Your task to perform on an android device: Clear the cart on costco. Search for "apple airpods pro" on costco, select the first entry, add it to the cart, then select checkout. Image 0: 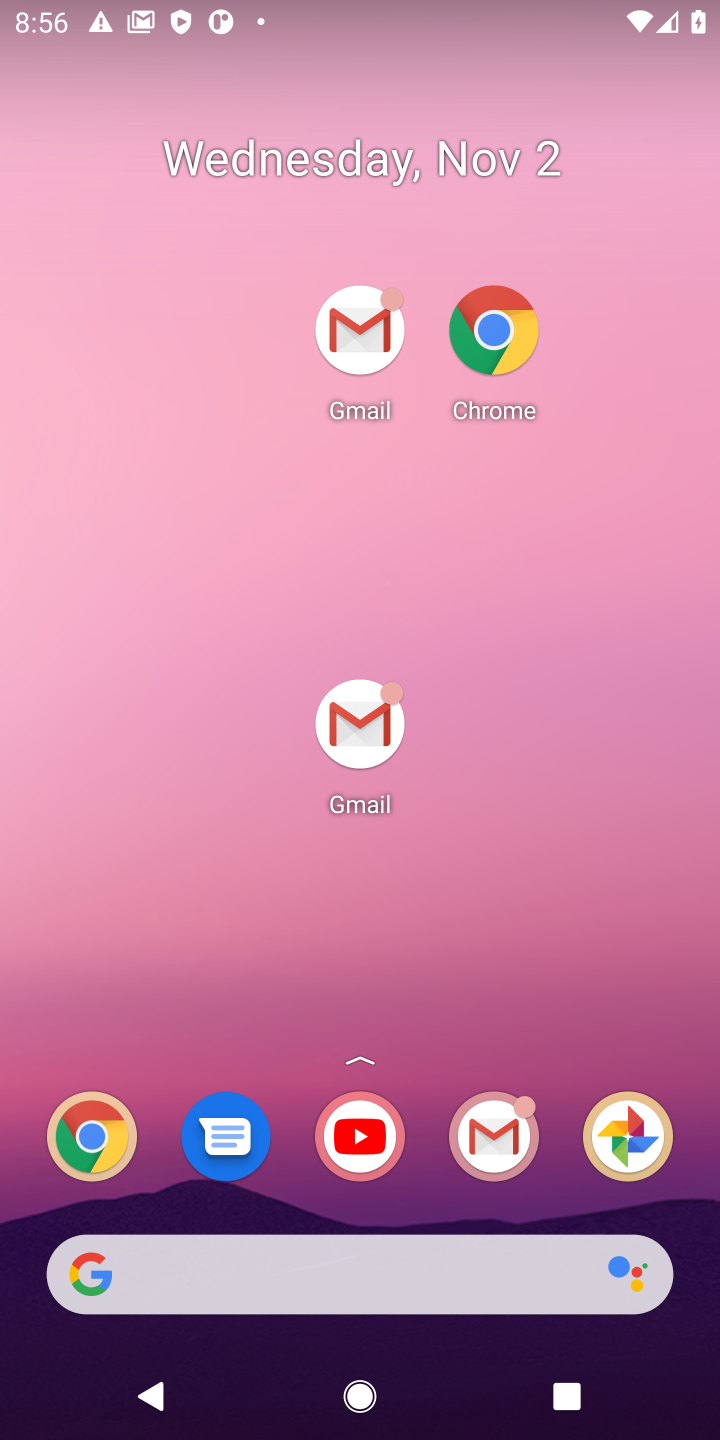
Step 0: drag from (194, 1198) to (336, 234)
Your task to perform on an android device: Clear the cart on costco. Search for "apple airpods pro" on costco, select the first entry, add it to the cart, then select checkout. Image 1: 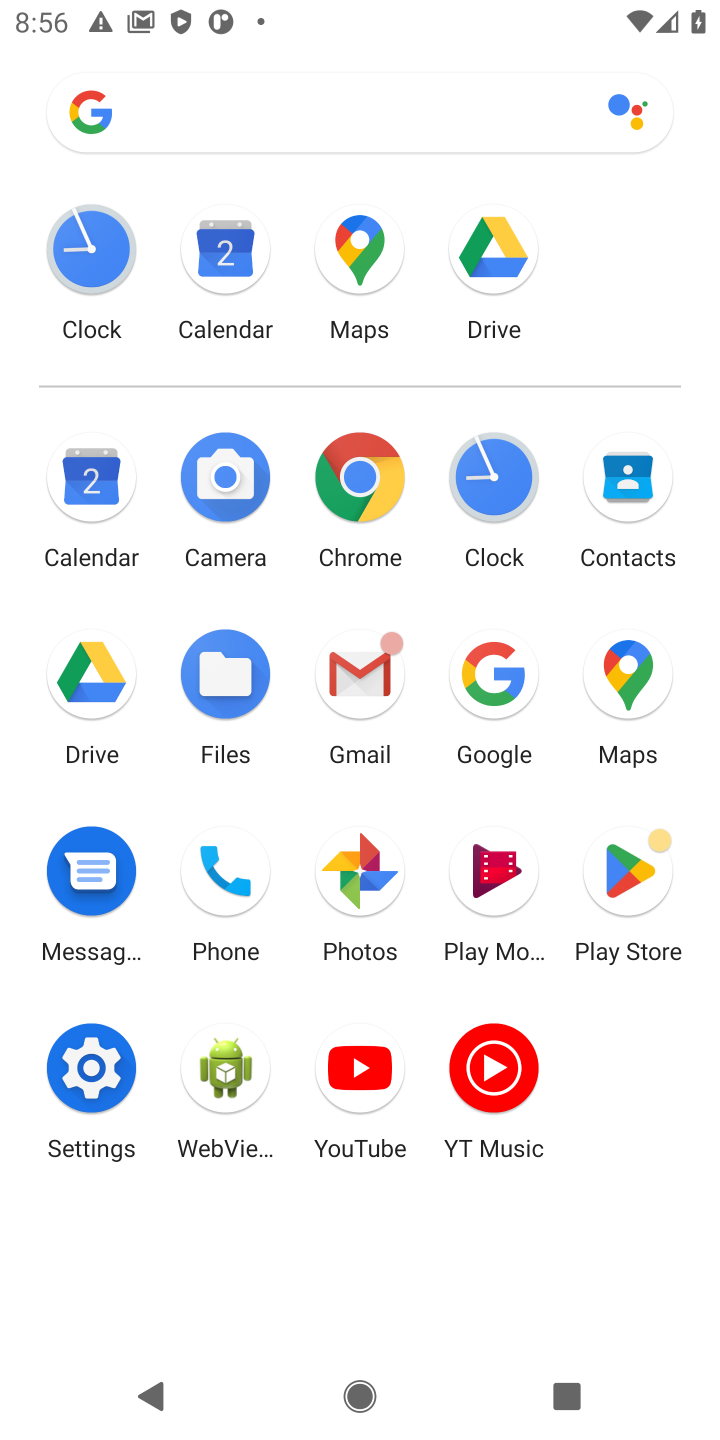
Step 1: click (489, 678)
Your task to perform on an android device: Clear the cart on costco. Search for "apple airpods pro" on costco, select the first entry, add it to the cart, then select checkout. Image 2: 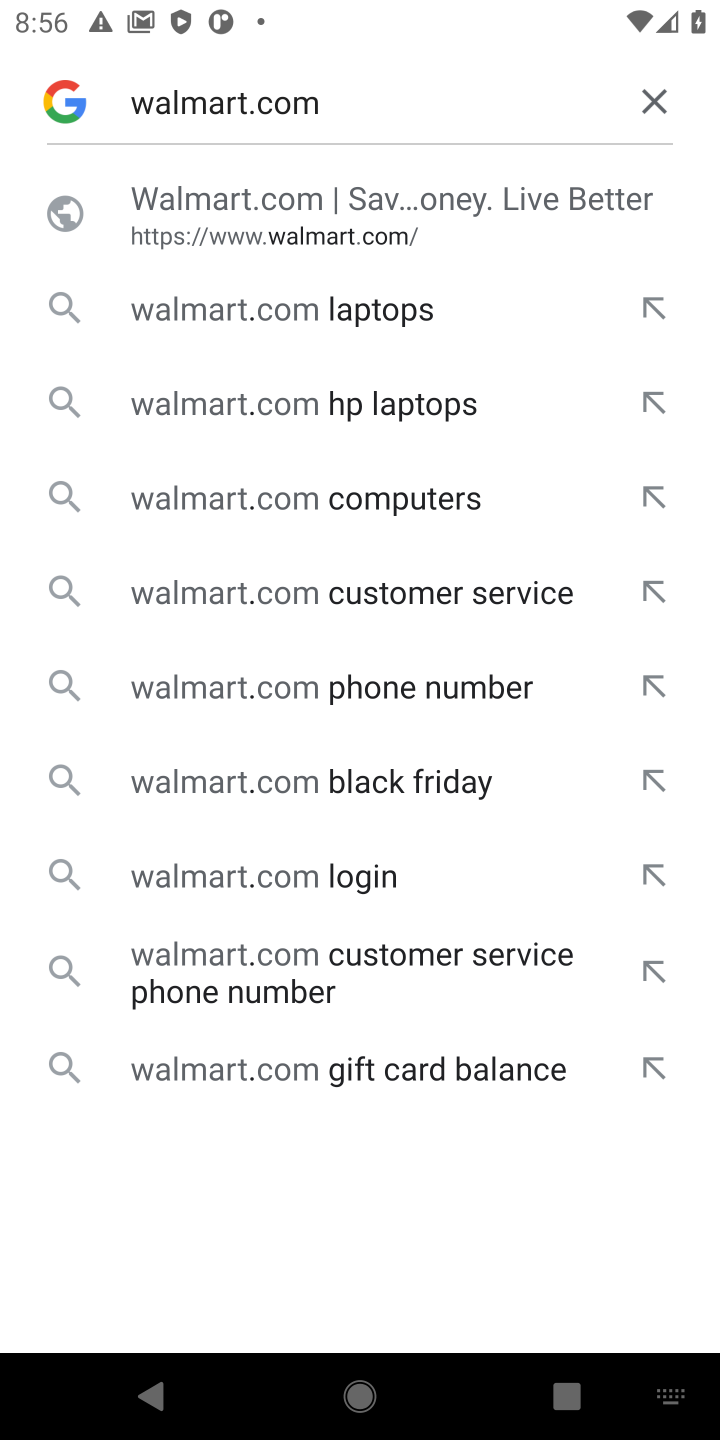
Step 2: click (651, 100)
Your task to perform on an android device: Clear the cart on costco. Search for "apple airpods pro" on costco, select the first entry, add it to the cart, then select checkout. Image 3: 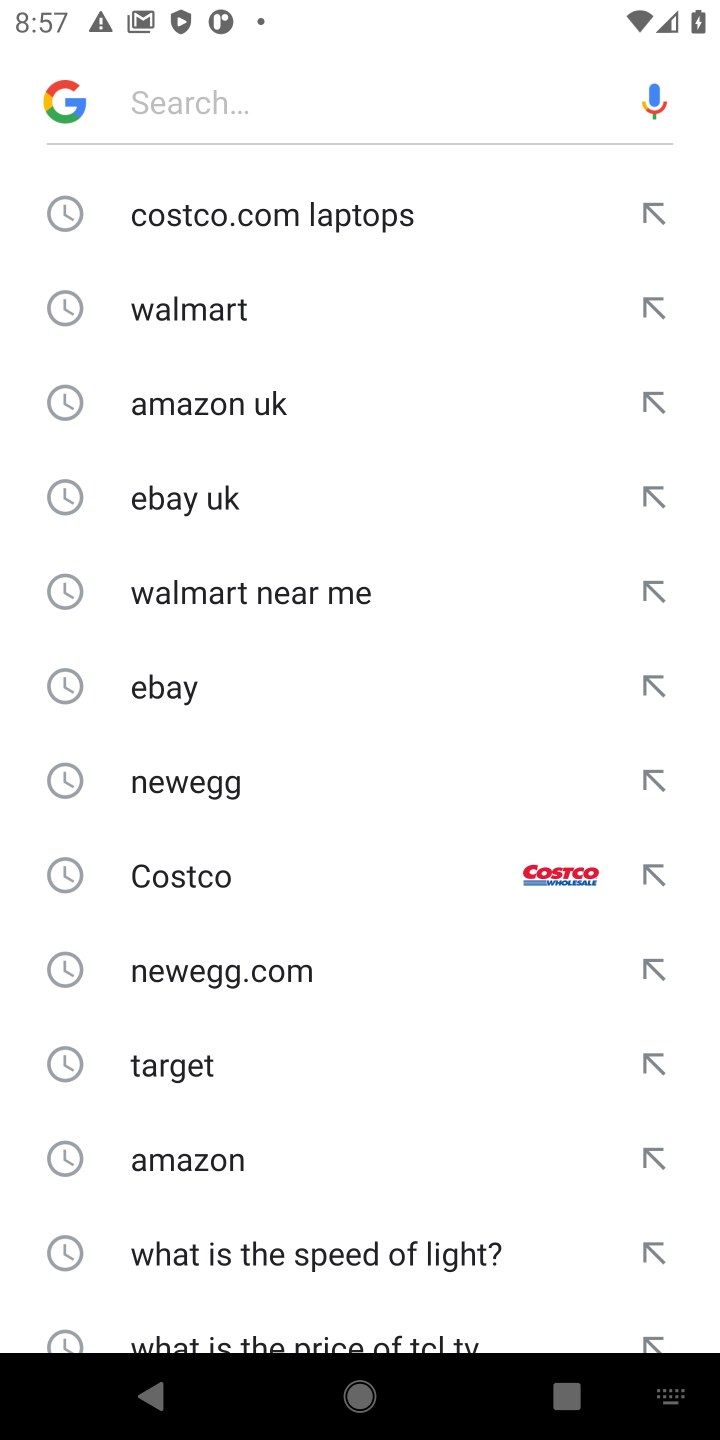
Step 3: click (292, 80)
Your task to perform on an android device: Clear the cart on costco. Search for "apple airpods pro" on costco, select the first entry, add it to the cart, then select checkout. Image 4: 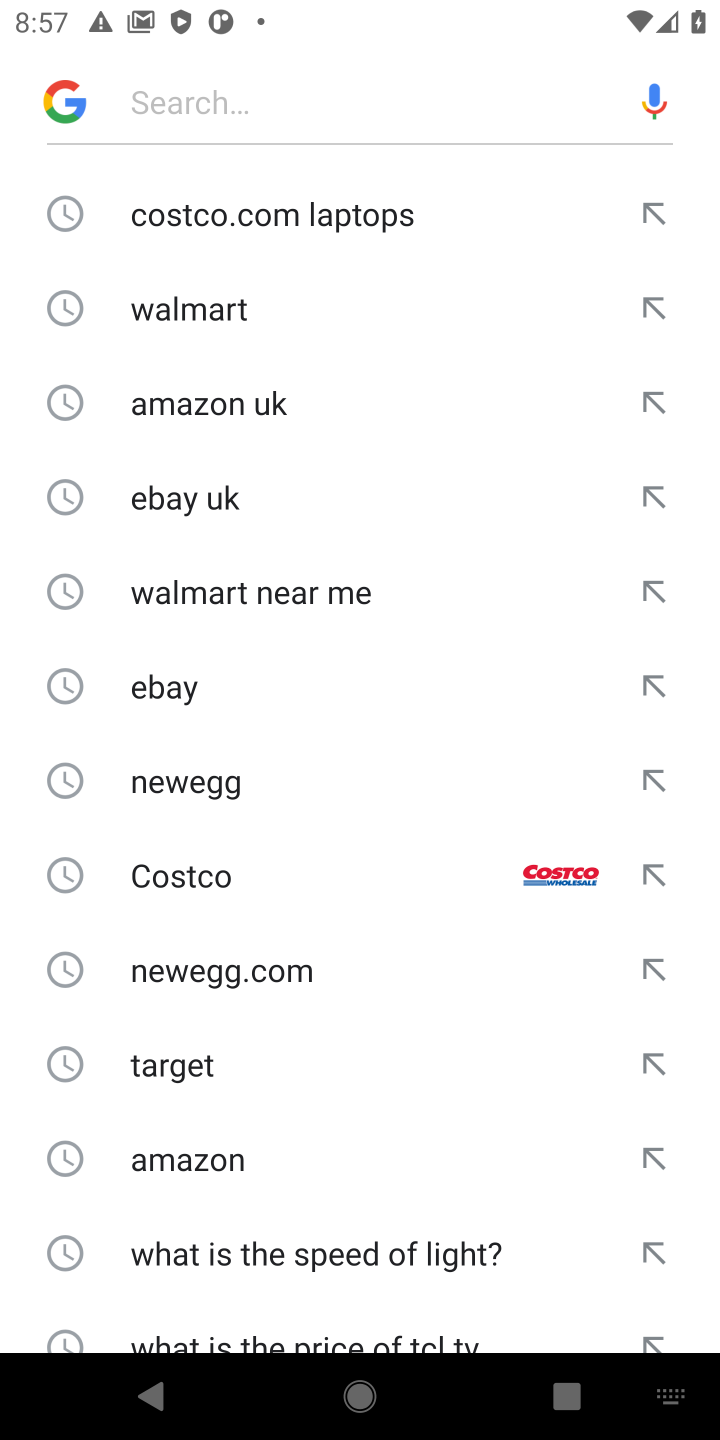
Step 4: type "costco "
Your task to perform on an android device: Clear the cart on costco. Search for "apple airpods pro" on costco, select the first entry, add it to the cart, then select checkout. Image 5: 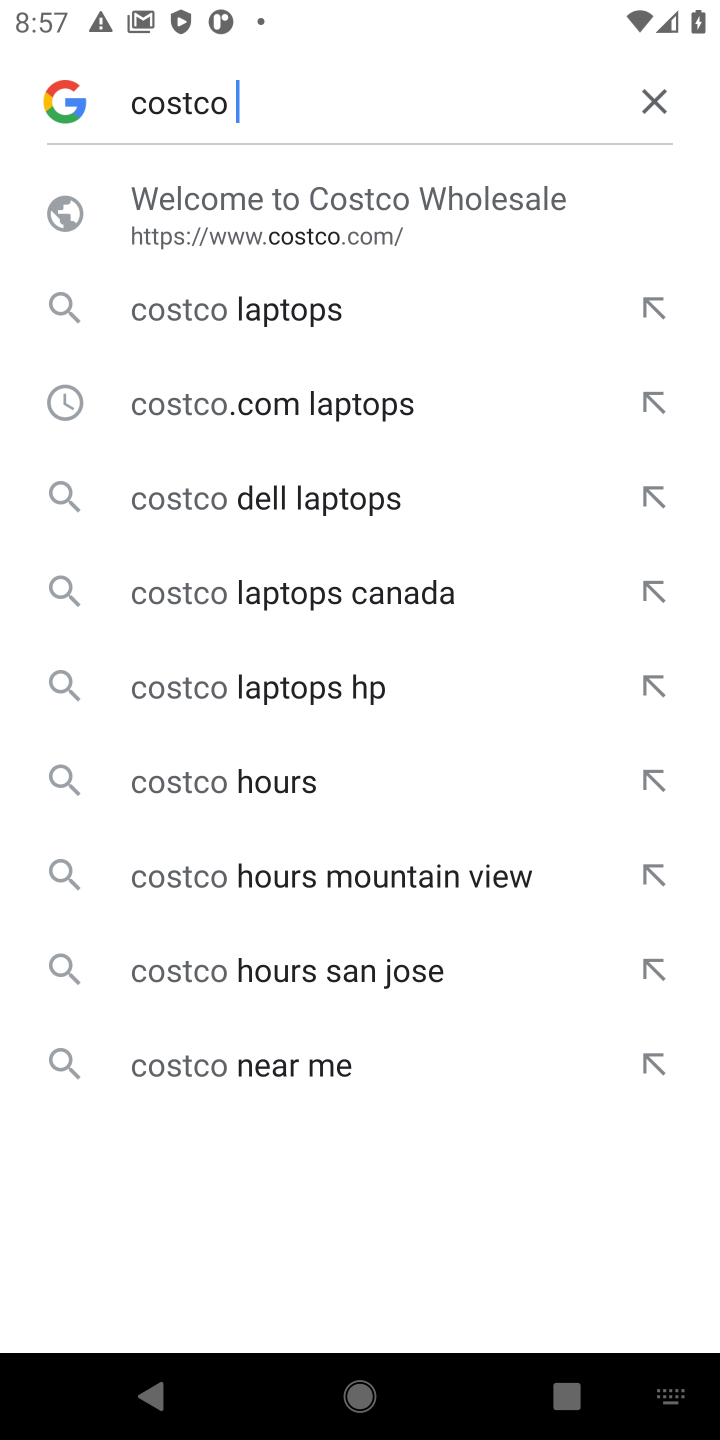
Step 5: click (353, 166)
Your task to perform on an android device: Clear the cart on costco. Search for "apple airpods pro" on costco, select the first entry, add it to the cart, then select checkout. Image 6: 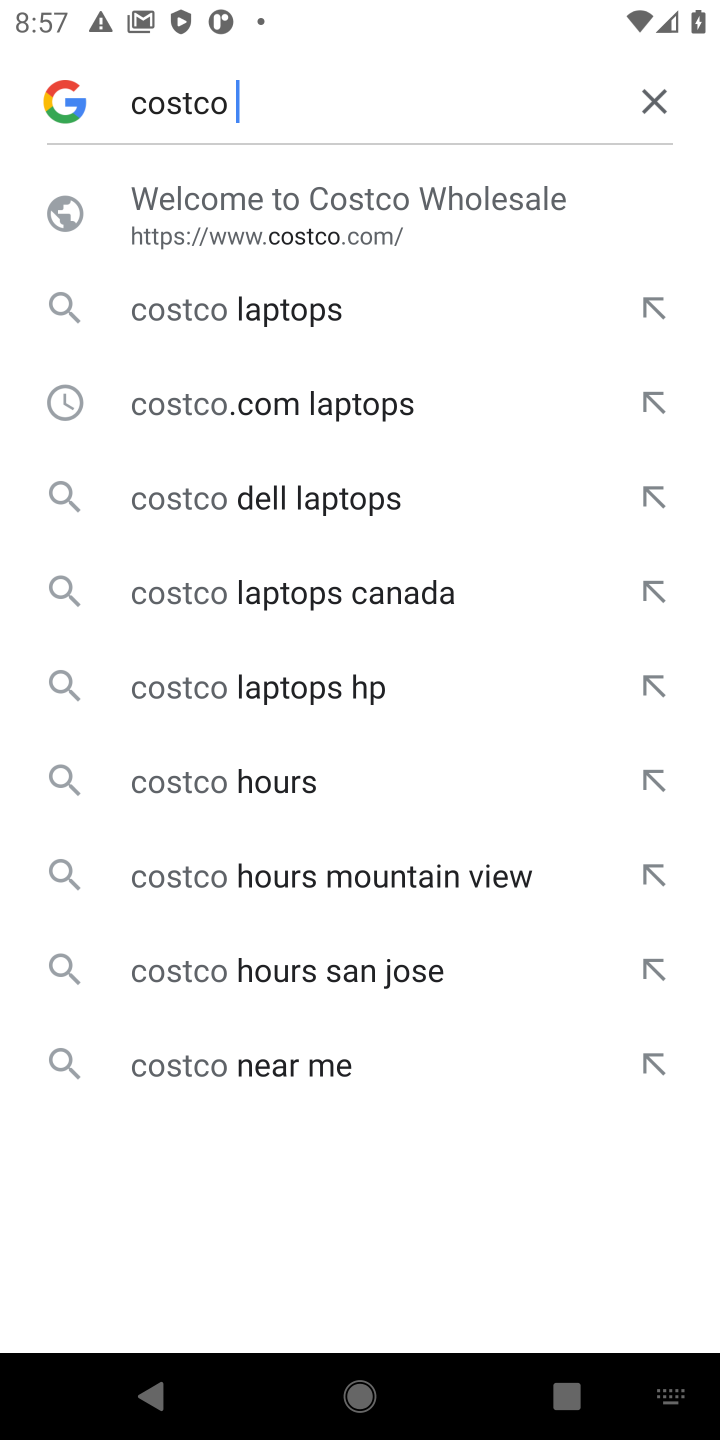
Step 6: click (394, 193)
Your task to perform on an android device: Clear the cart on costco. Search for "apple airpods pro" on costco, select the first entry, add it to the cart, then select checkout. Image 7: 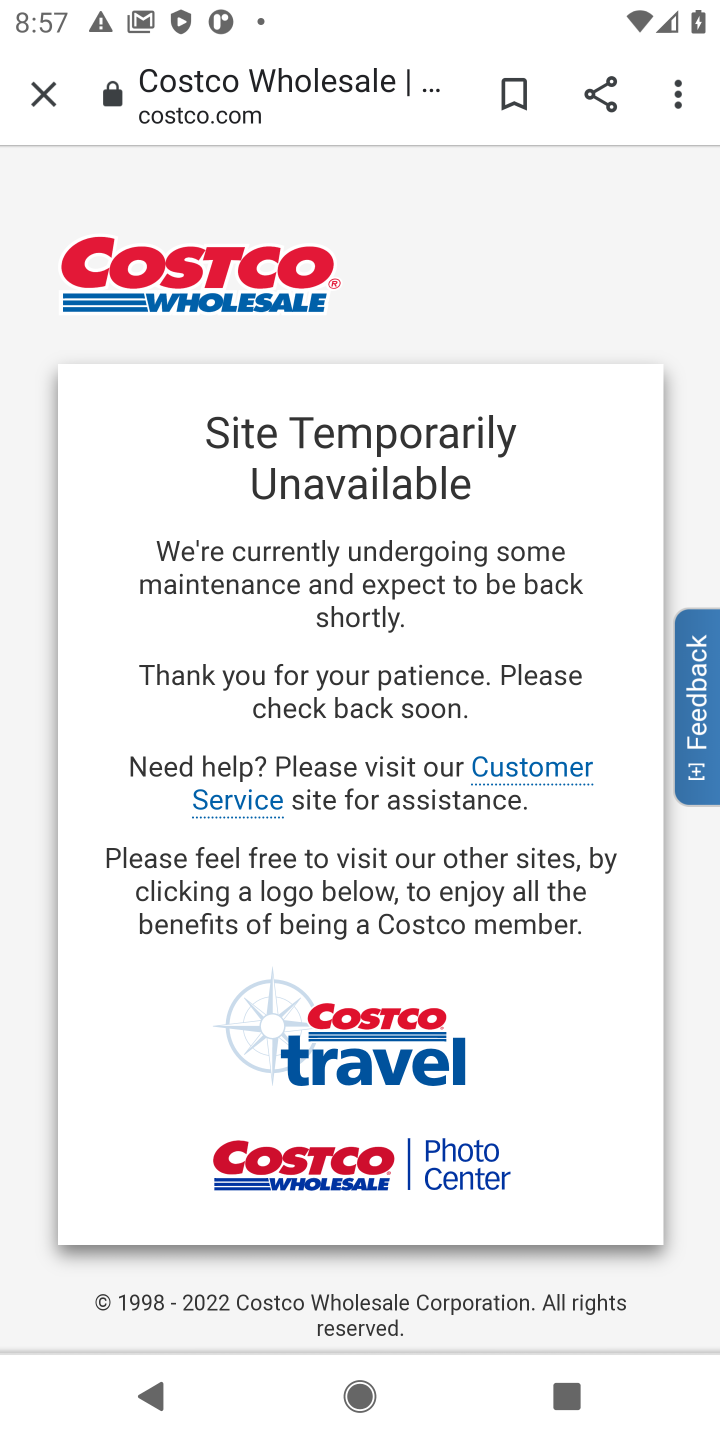
Step 7: drag from (493, 1094) to (467, 311)
Your task to perform on an android device: Clear the cart on costco. Search for "apple airpods pro" on costco, select the first entry, add it to the cart, then select checkout. Image 8: 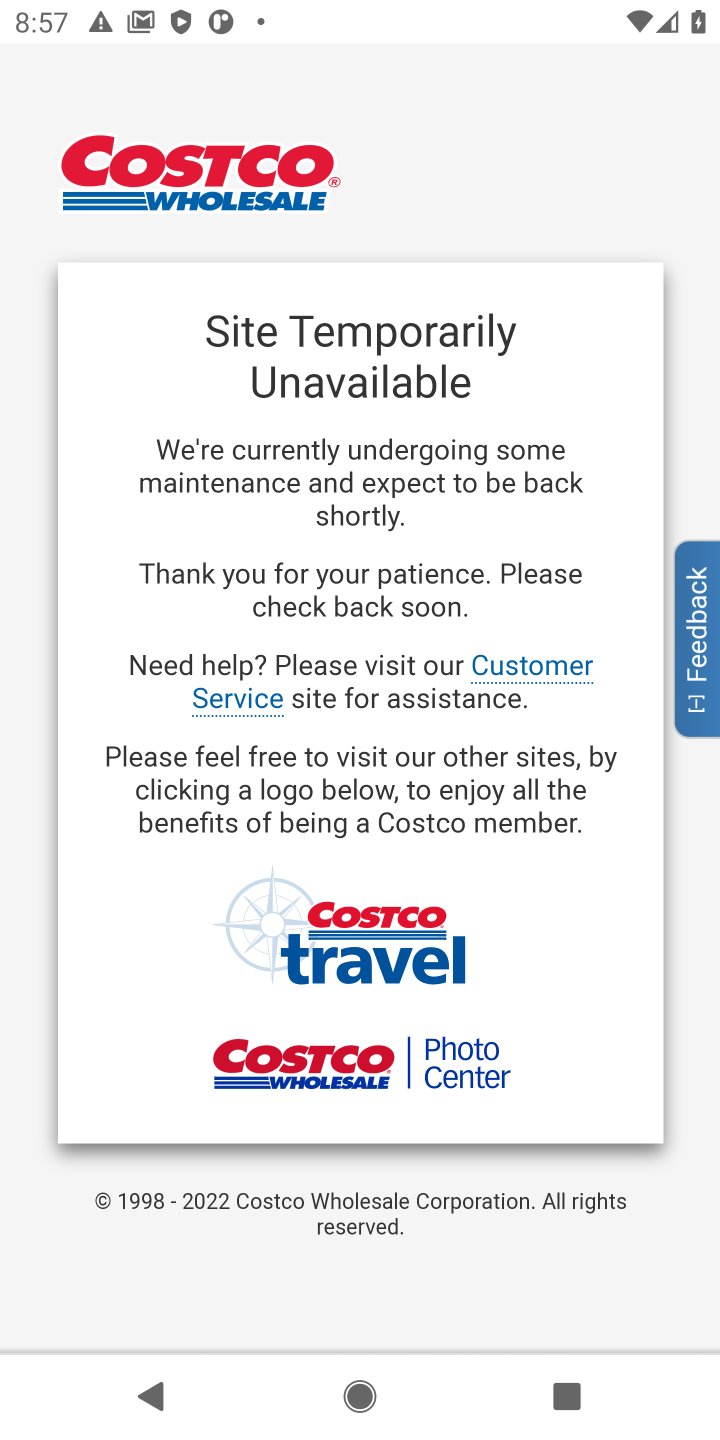
Step 8: press back button
Your task to perform on an android device: Clear the cart on costco. Search for "apple airpods pro" on costco, select the first entry, add it to the cart, then select checkout. Image 9: 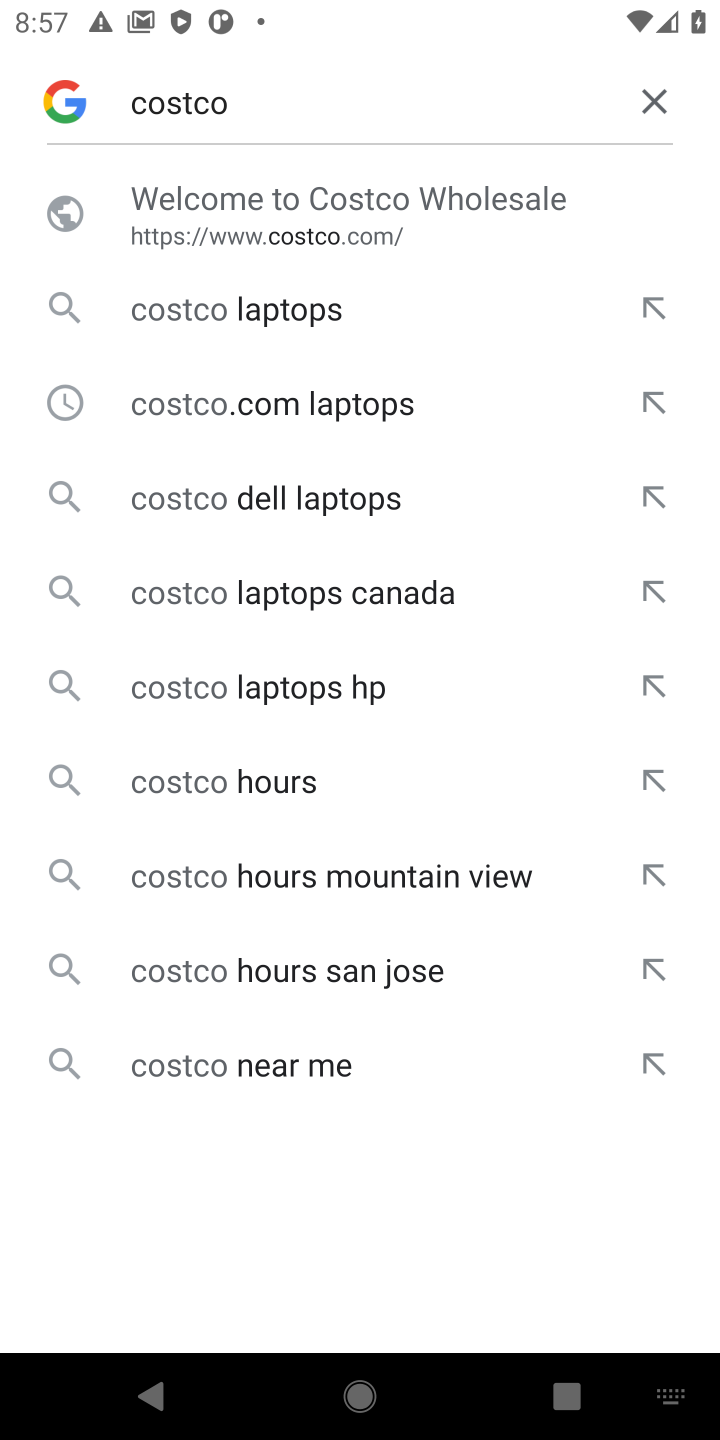
Step 9: click (223, 1057)
Your task to perform on an android device: Clear the cart on costco. Search for "apple airpods pro" on costco, select the first entry, add it to the cart, then select checkout. Image 10: 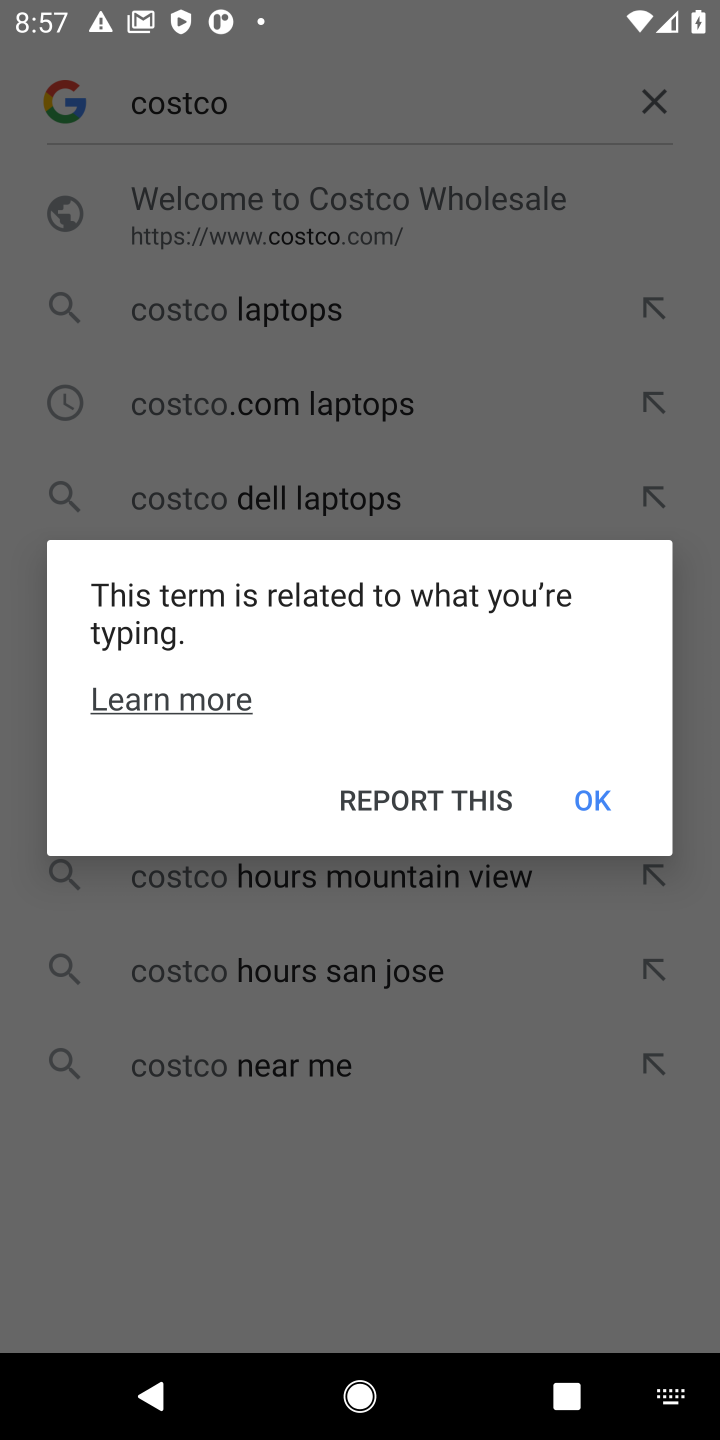
Step 10: click (621, 781)
Your task to perform on an android device: Clear the cart on costco. Search for "apple airpods pro" on costco, select the first entry, add it to the cart, then select checkout. Image 11: 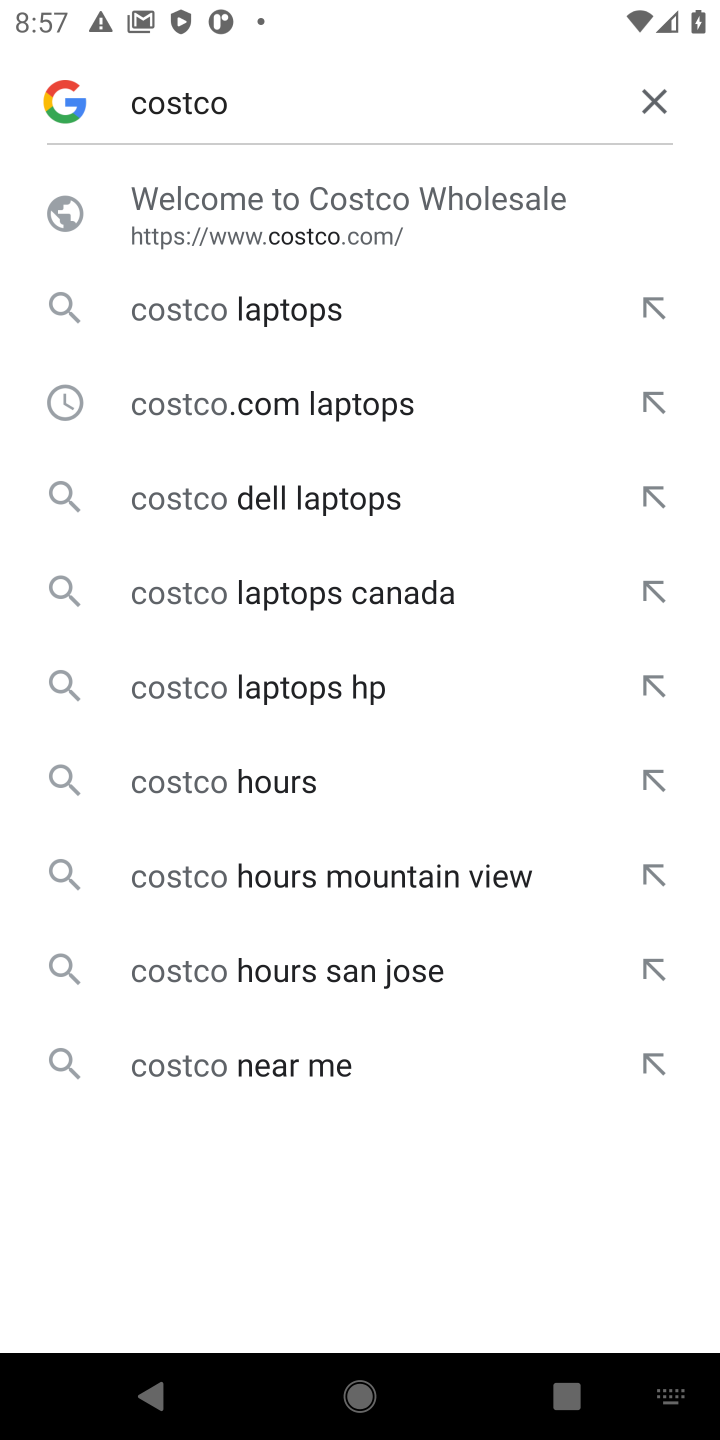
Step 11: click (648, 96)
Your task to perform on an android device: Clear the cart on costco. Search for "apple airpods pro" on costco, select the first entry, add it to the cart, then select checkout. Image 12: 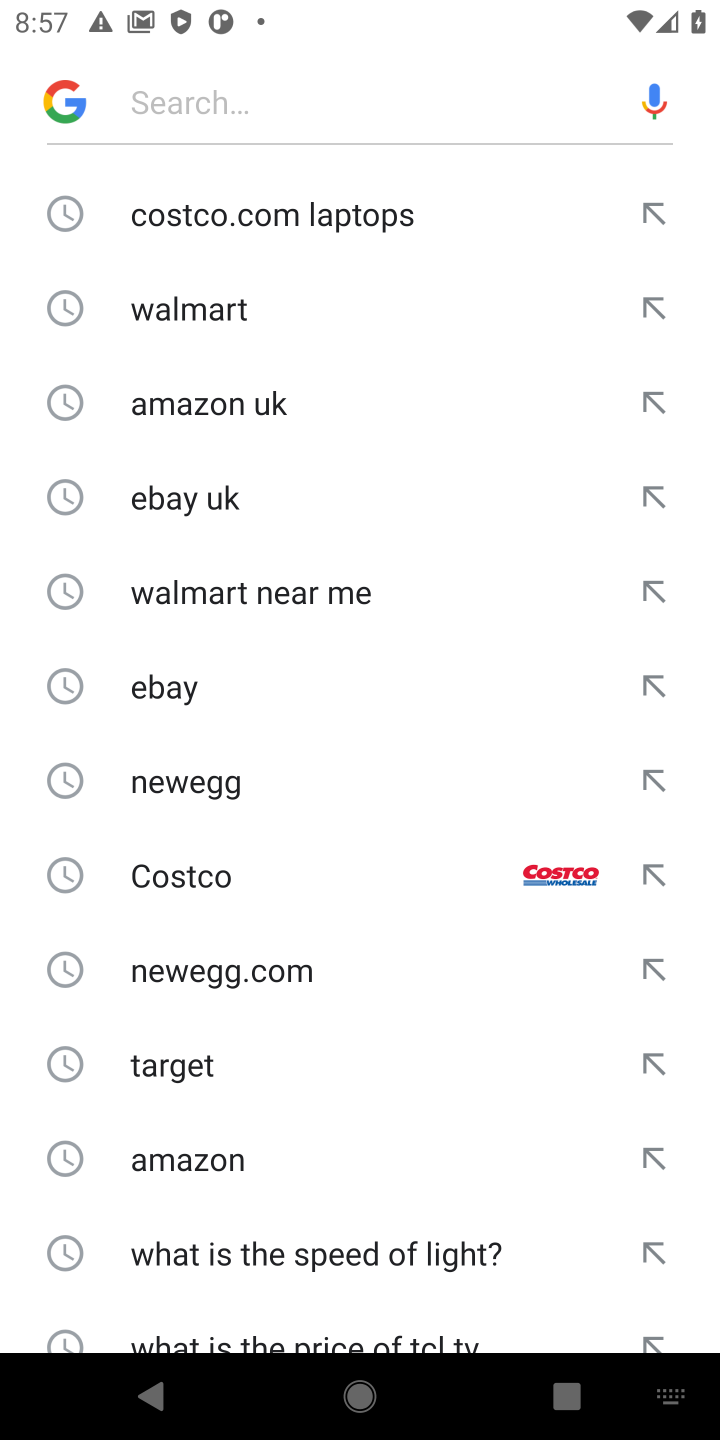
Step 12: click (343, 110)
Your task to perform on an android device: Clear the cart on costco. Search for "apple airpods pro" on costco, select the first entry, add it to the cart, then select checkout. Image 13: 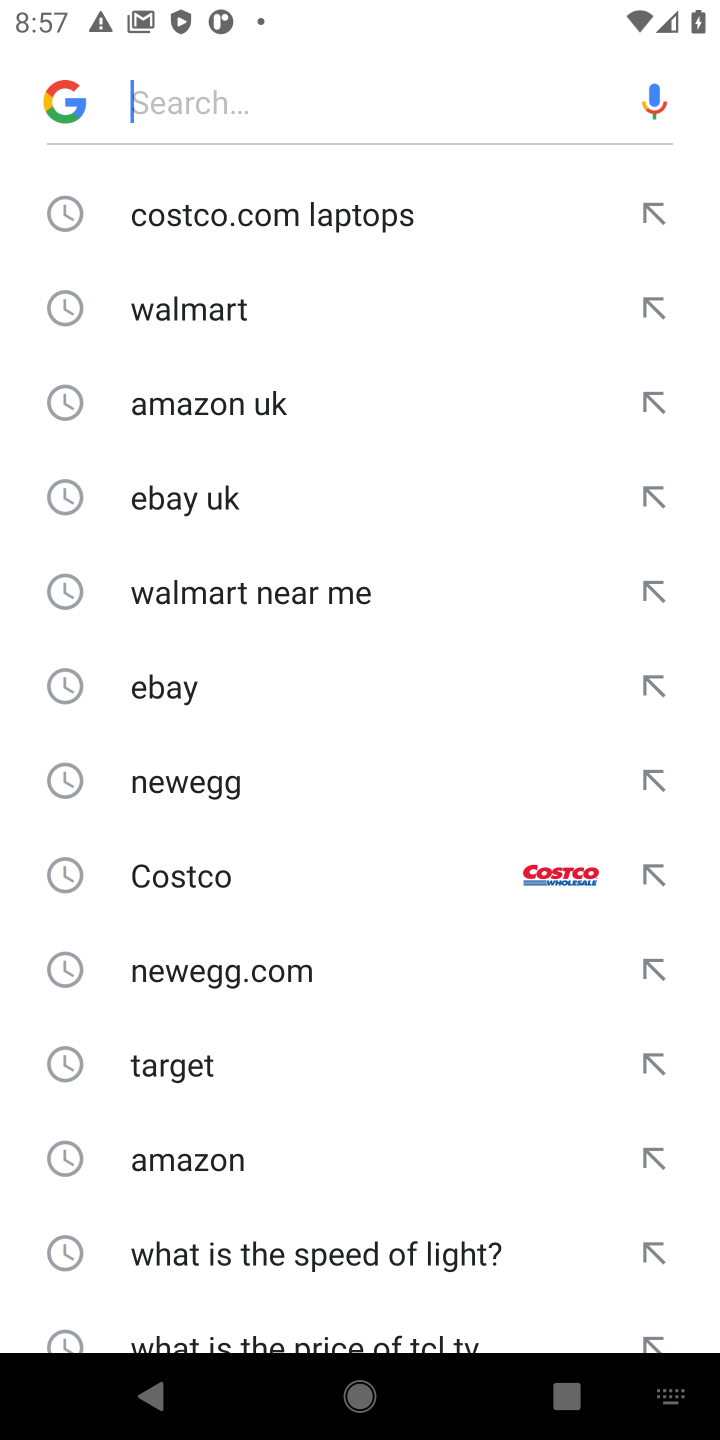
Step 13: click (340, 103)
Your task to perform on an android device: Clear the cart on costco. Search for "apple airpods pro" on costco, select the first entry, add it to the cart, then select checkout. Image 14: 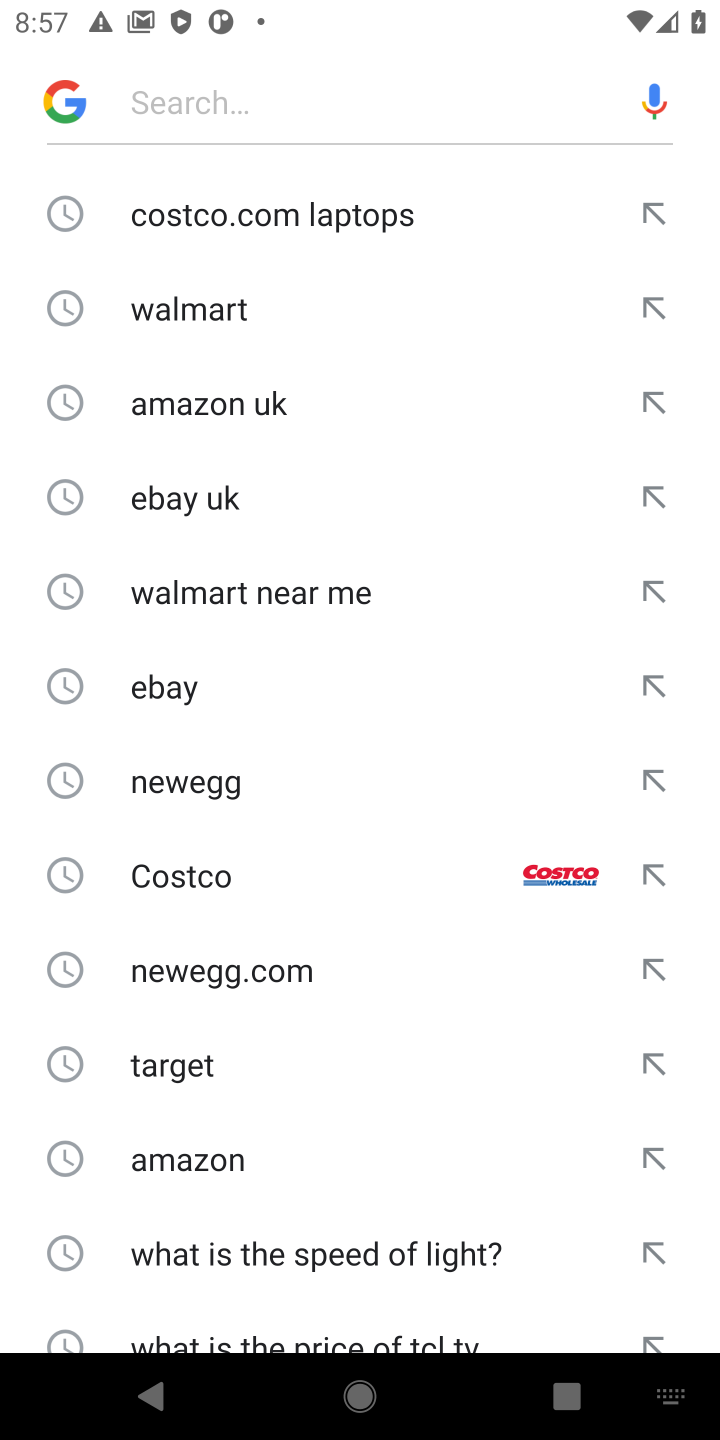
Step 14: type "costco "
Your task to perform on an android device: Clear the cart on costco. Search for "apple airpods pro" on costco, select the first entry, add it to the cart, then select checkout. Image 15: 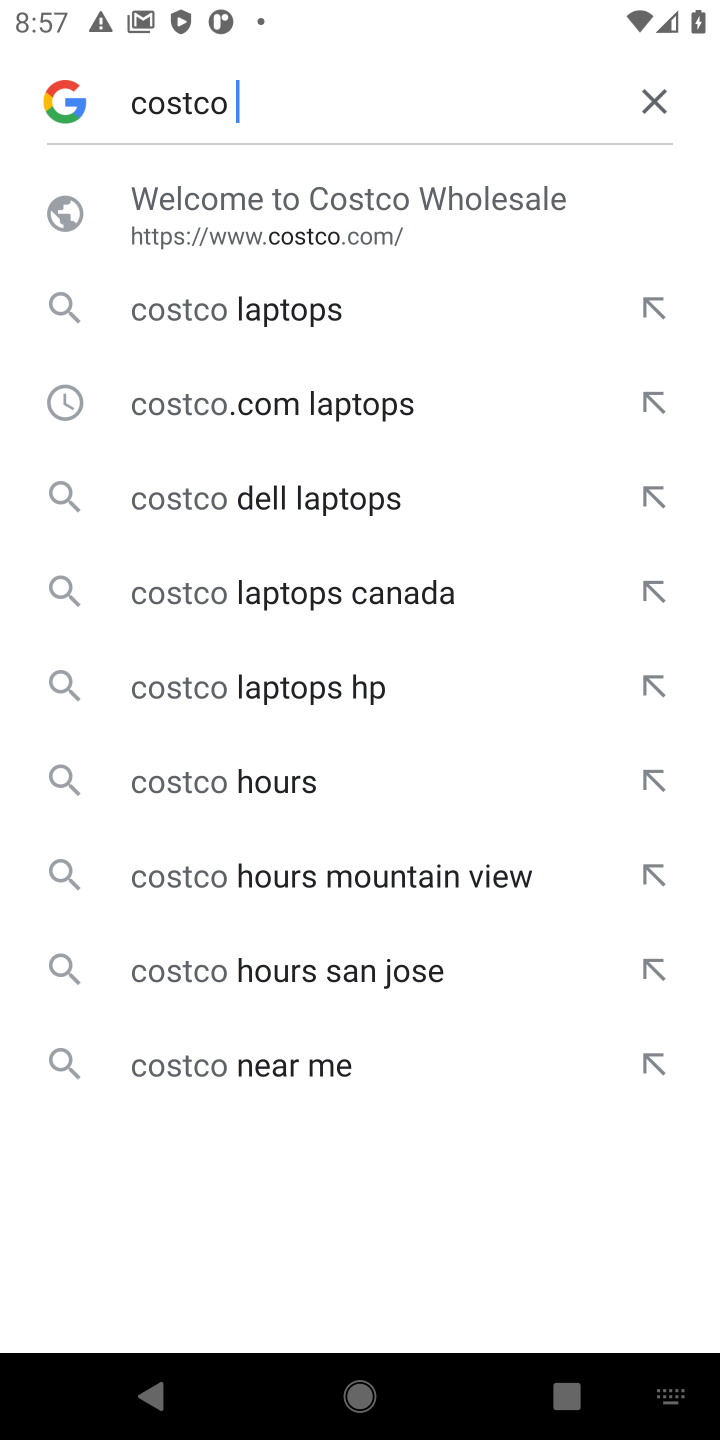
Step 15: click (303, 320)
Your task to perform on an android device: Clear the cart on costco. Search for "apple airpods pro" on costco, select the first entry, add it to the cart, then select checkout. Image 16: 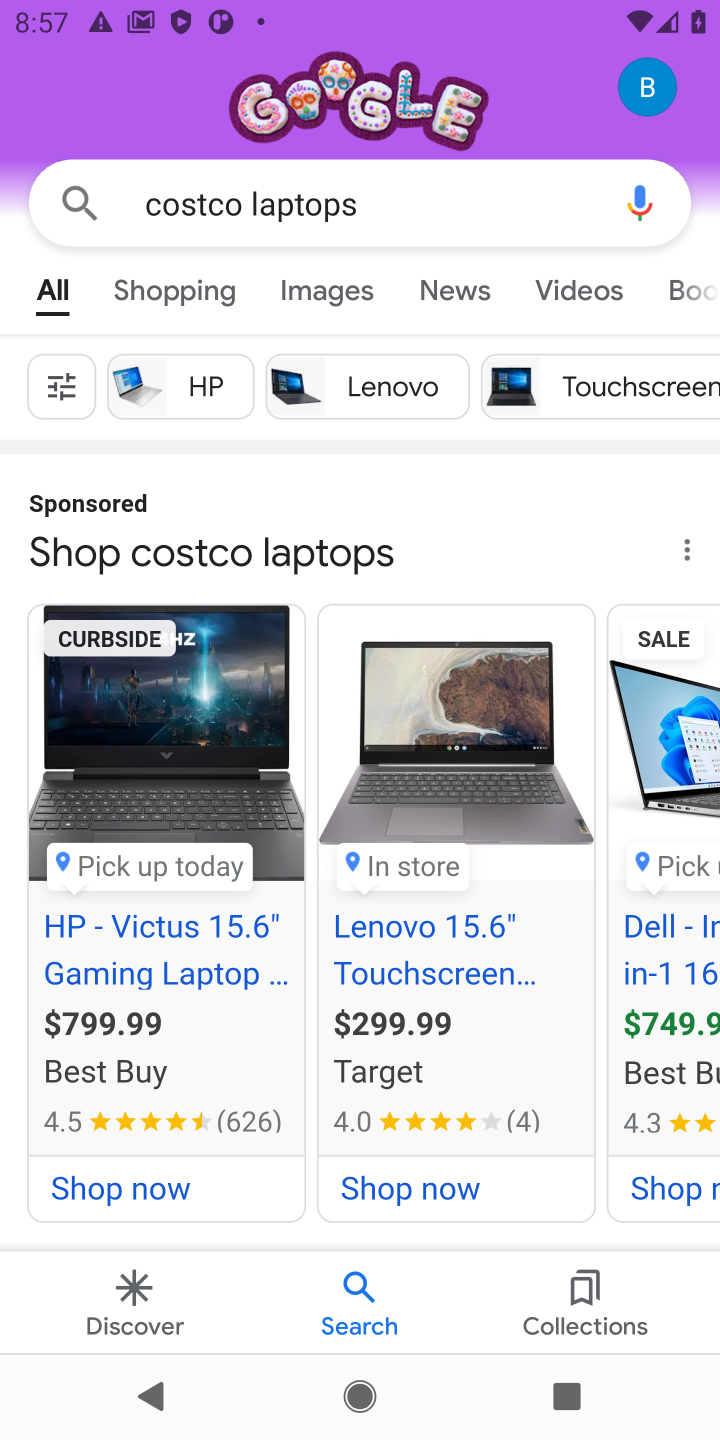
Step 16: click (414, 234)
Your task to perform on an android device: Clear the cart on costco. Search for "apple airpods pro" on costco, select the first entry, add it to the cart, then select checkout. Image 17: 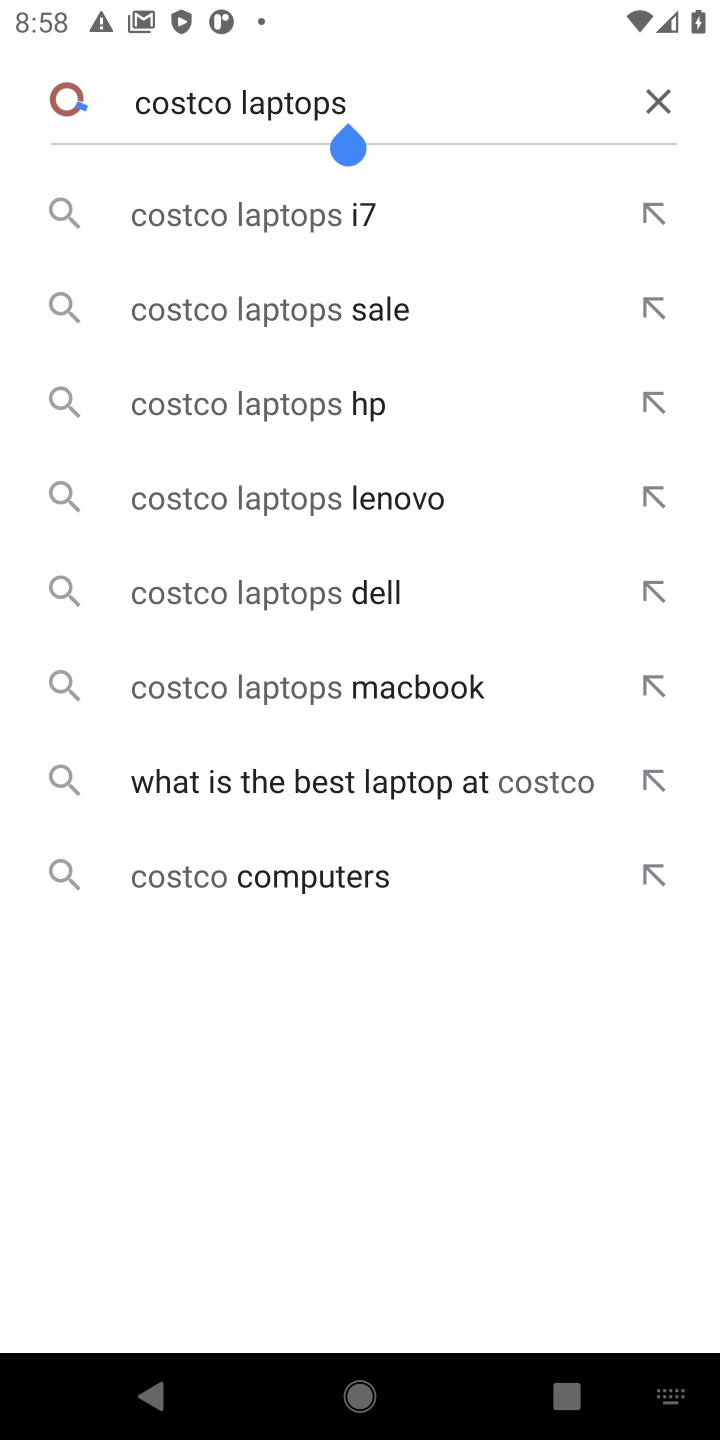
Step 17: click (418, 769)
Your task to perform on an android device: Clear the cart on costco. Search for "apple airpods pro" on costco, select the first entry, add it to the cart, then select checkout. Image 18: 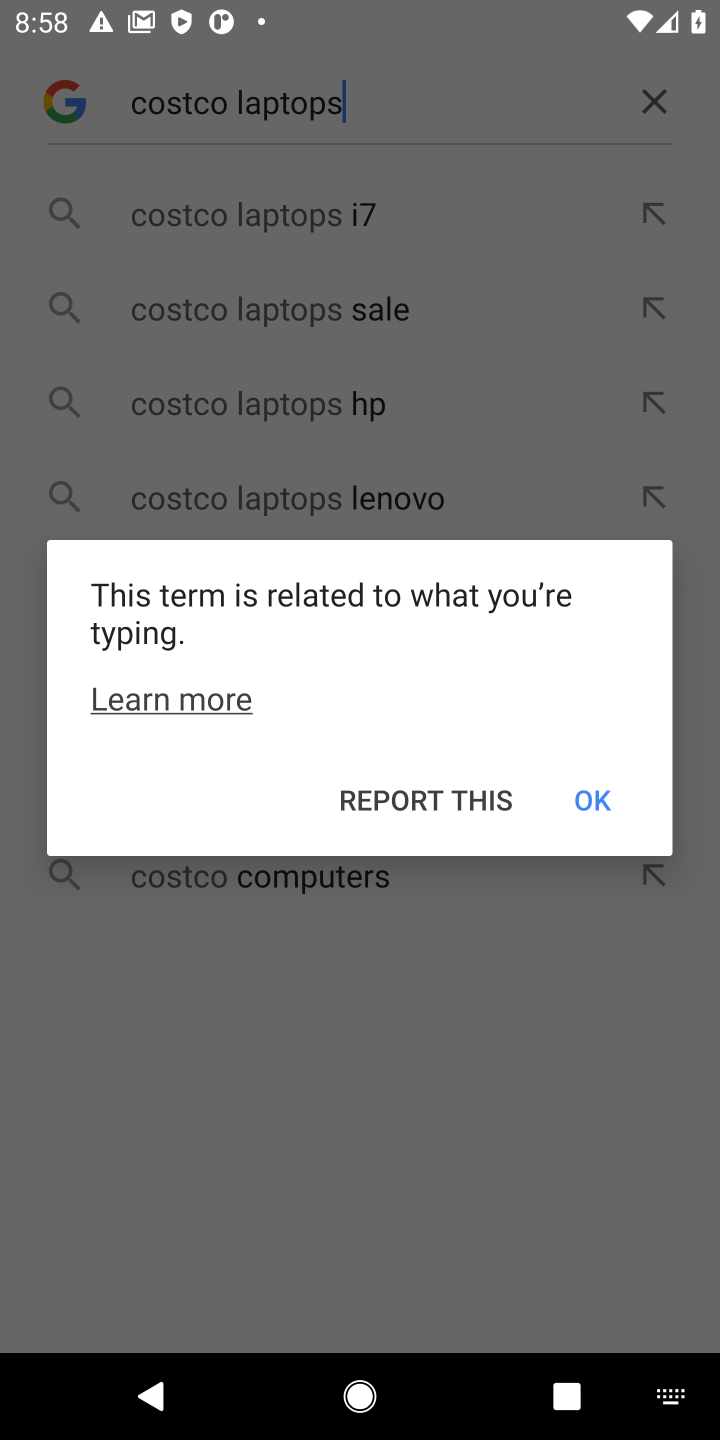
Step 18: click (582, 815)
Your task to perform on an android device: Clear the cart on costco. Search for "apple airpods pro" on costco, select the first entry, add it to the cart, then select checkout. Image 19: 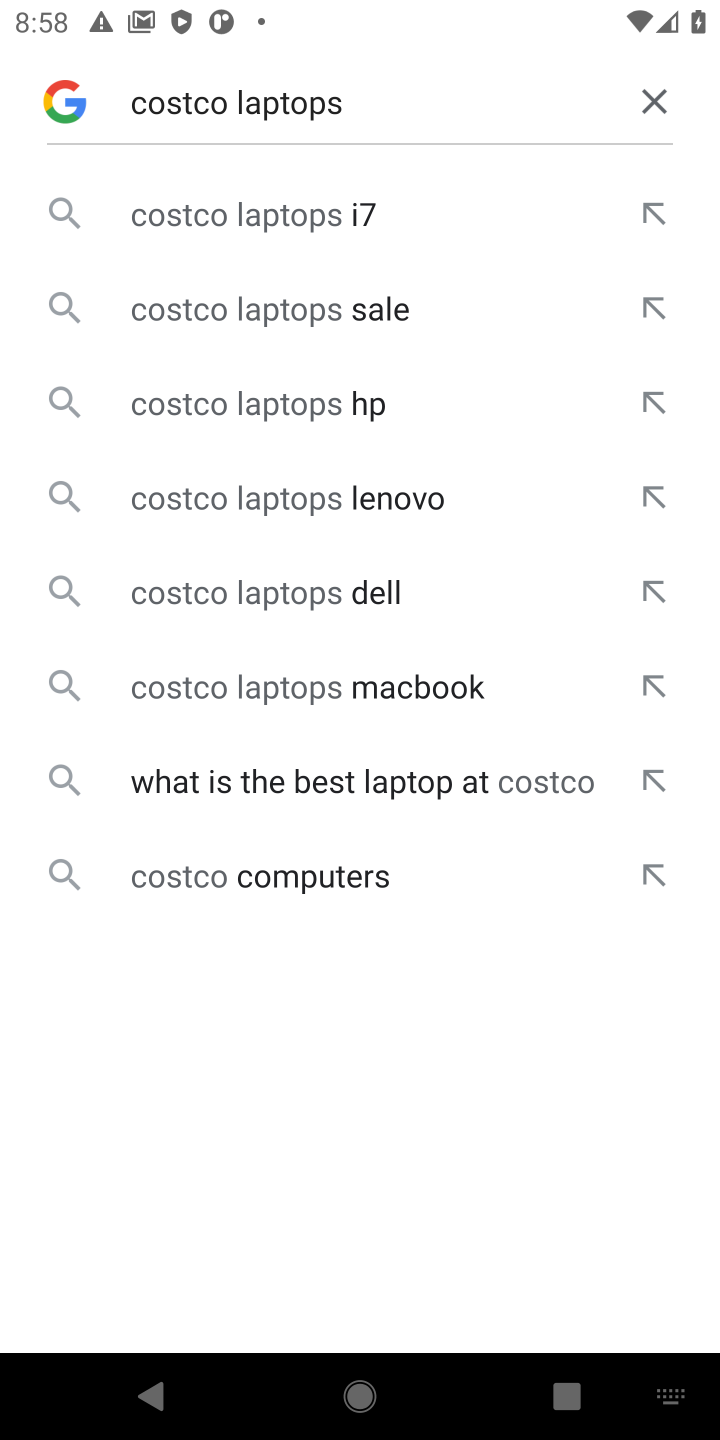
Step 19: press back button
Your task to perform on an android device: Clear the cart on costco. Search for "apple airpods pro" on costco, select the first entry, add it to the cart, then select checkout. Image 20: 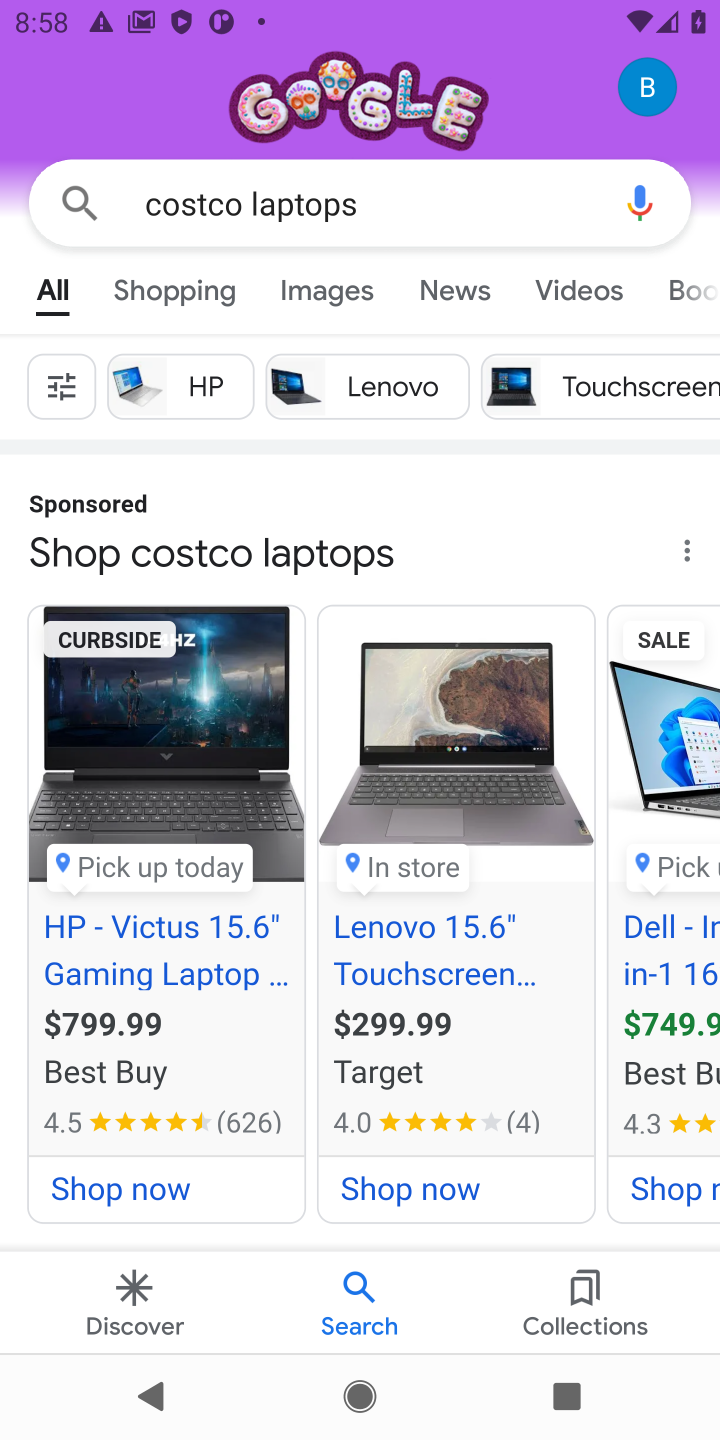
Step 20: drag from (372, 1000) to (434, 151)
Your task to perform on an android device: Clear the cart on costco. Search for "apple airpods pro" on costco, select the first entry, add it to the cart, then select checkout. Image 21: 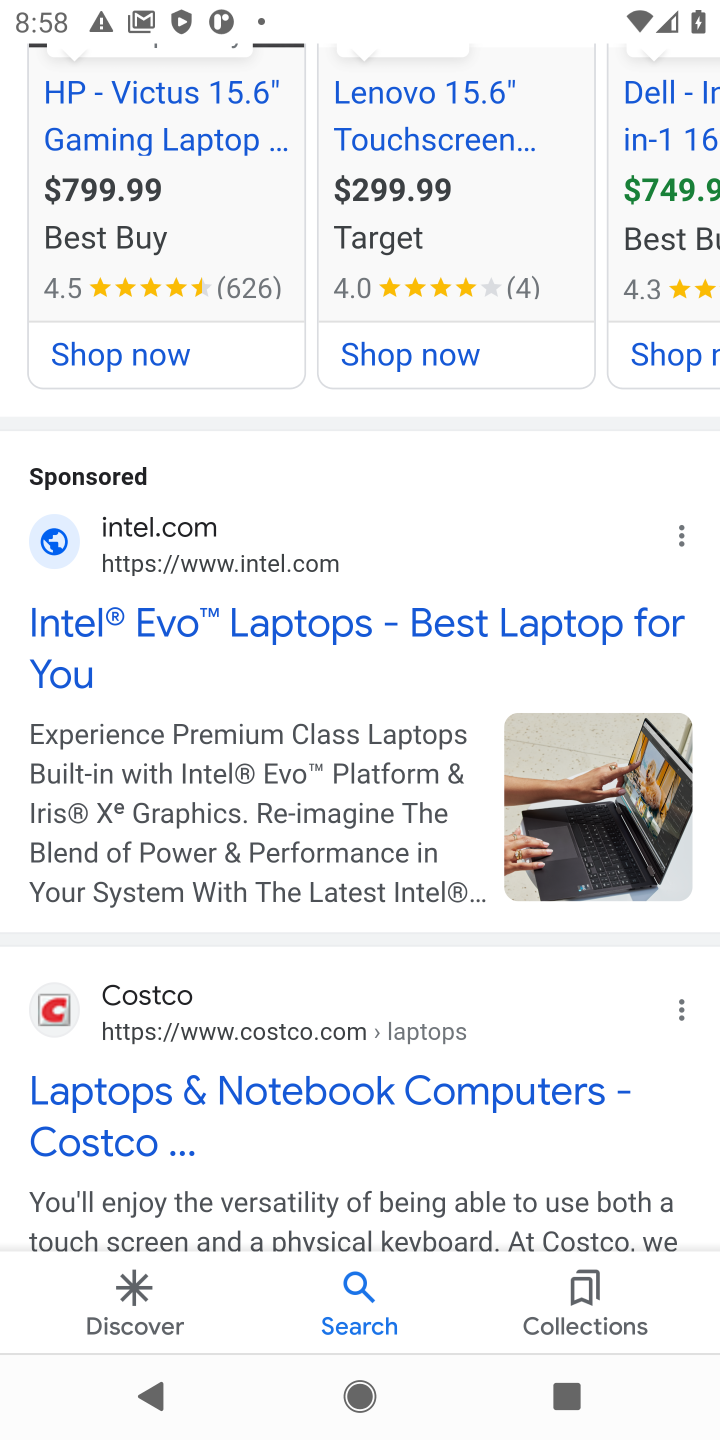
Step 21: click (52, 1025)
Your task to perform on an android device: Clear the cart on costco. Search for "apple airpods pro" on costco, select the first entry, add it to the cart, then select checkout. Image 22: 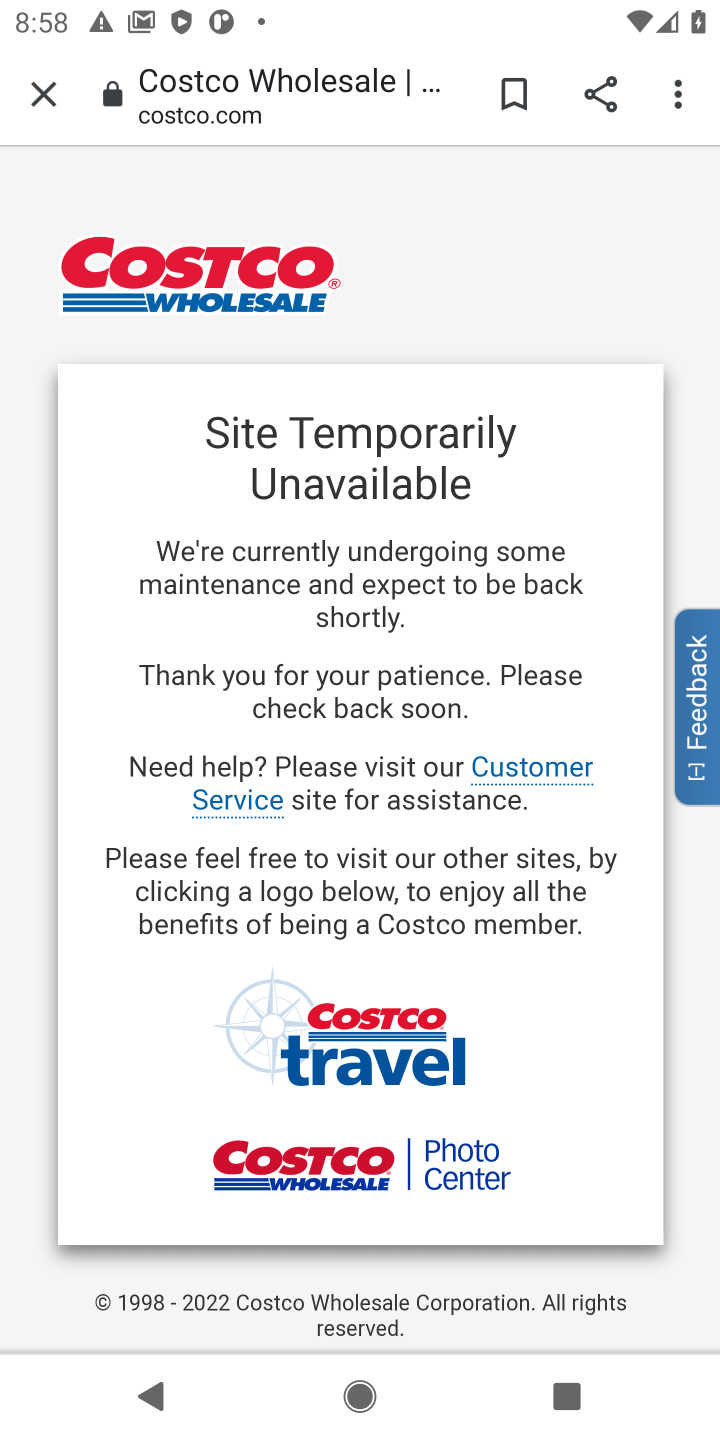
Step 22: task complete